Your task to perform on an android device: add a label to a message in the gmail app Image 0: 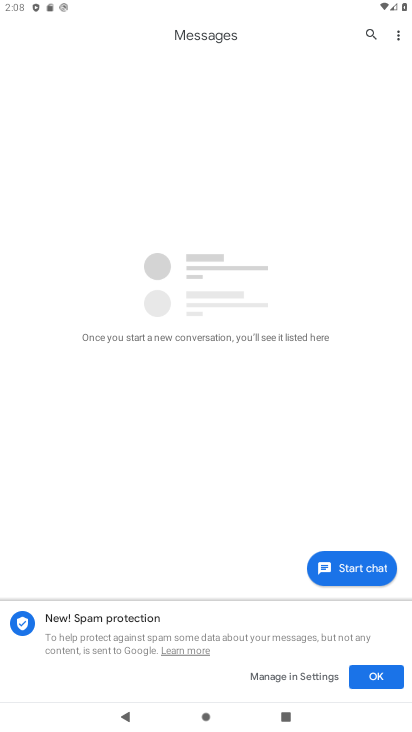
Step 0: press back button
Your task to perform on an android device: add a label to a message in the gmail app Image 1: 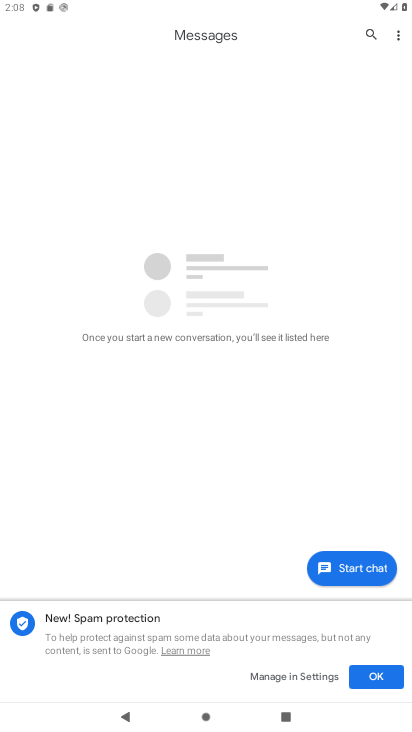
Step 1: press back button
Your task to perform on an android device: add a label to a message in the gmail app Image 2: 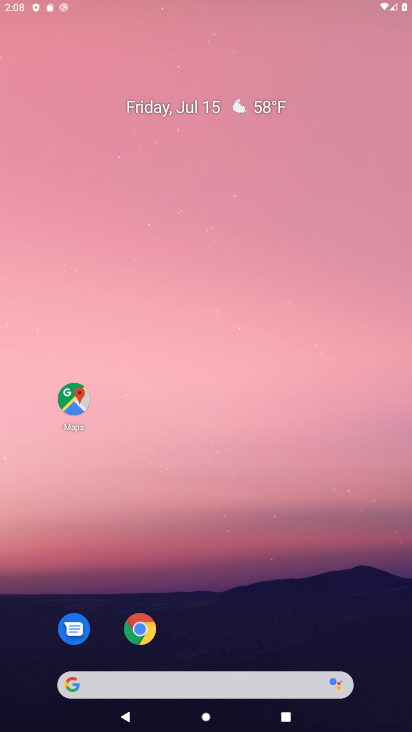
Step 2: press back button
Your task to perform on an android device: add a label to a message in the gmail app Image 3: 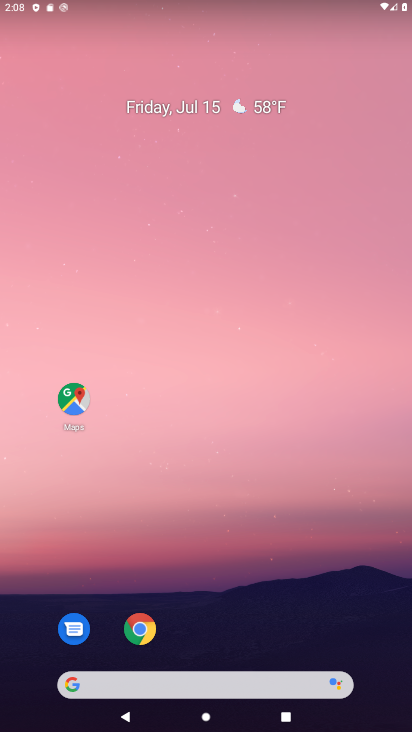
Step 3: press home button
Your task to perform on an android device: add a label to a message in the gmail app Image 4: 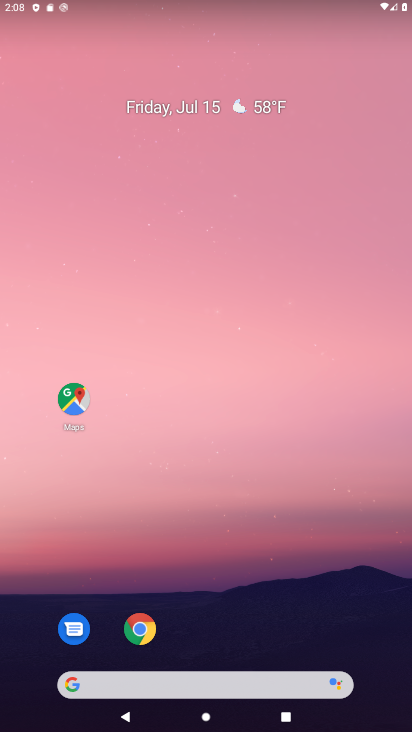
Step 4: drag from (235, 402) to (221, 169)
Your task to perform on an android device: add a label to a message in the gmail app Image 5: 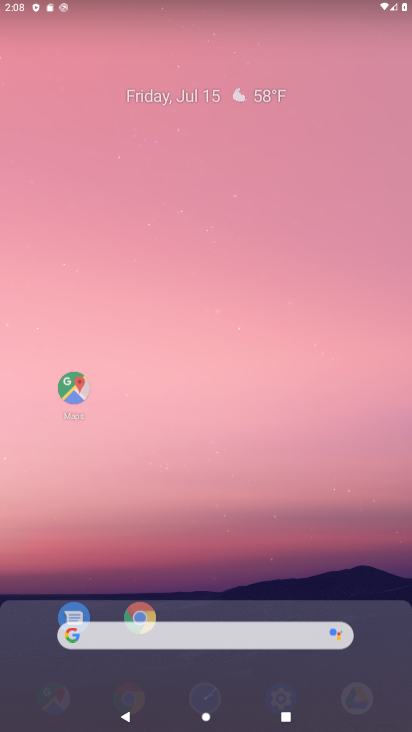
Step 5: drag from (258, 341) to (240, 146)
Your task to perform on an android device: add a label to a message in the gmail app Image 6: 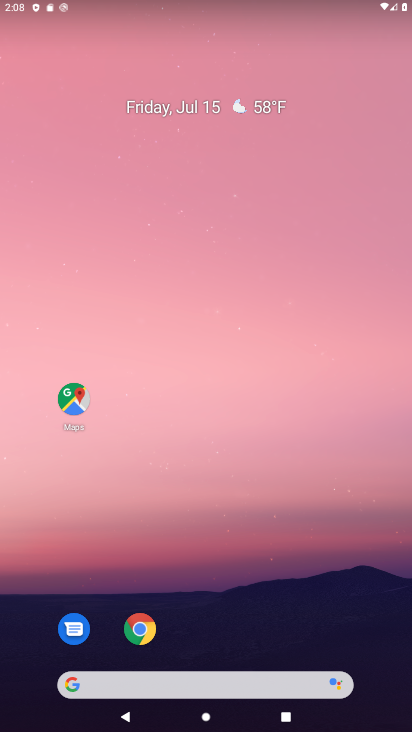
Step 6: drag from (207, 577) to (168, 254)
Your task to perform on an android device: add a label to a message in the gmail app Image 7: 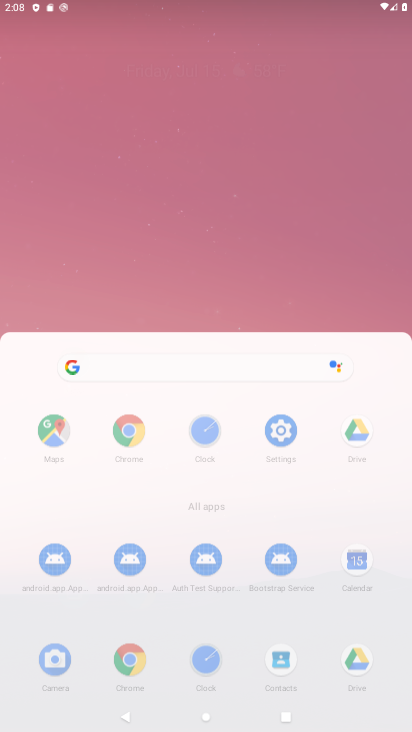
Step 7: drag from (214, 397) to (182, 90)
Your task to perform on an android device: add a label to a message in the gmail app Image 8: 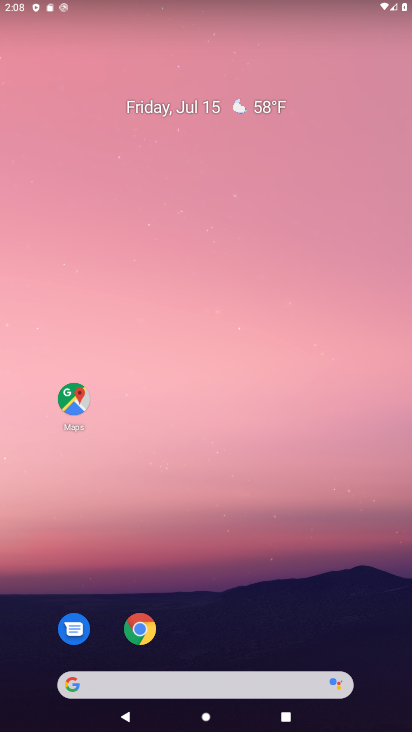
Step 8: drag from (215, 467) to (225, 124)
Your task to perform on an android device: add a label to a message in the gmail app Image 9: 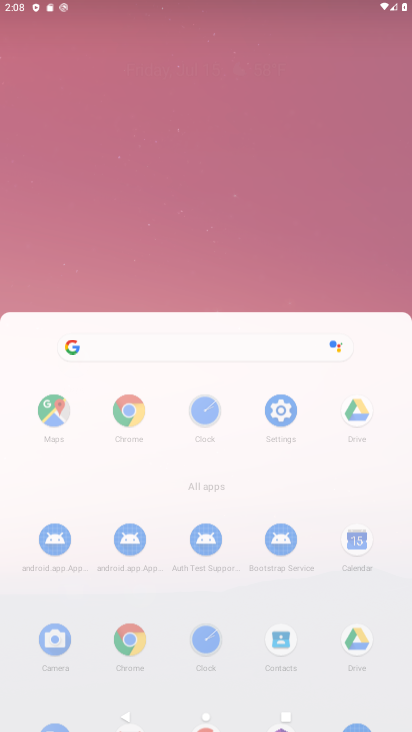
Step 9: drag from (274, 493) to (244, 193)
Your task to perform on an android device: add a label to a message in the gmail app Image 10: 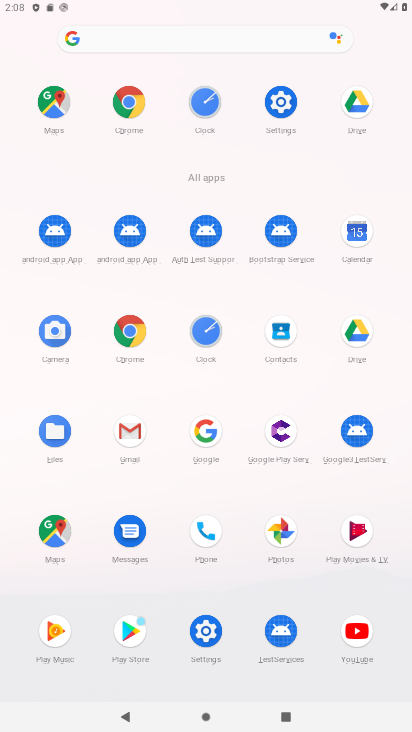
Step 10: drag from (207, 530) to (207, 79)
Your task to perform on an android device: add a label to a message in the gmail app Image 11: 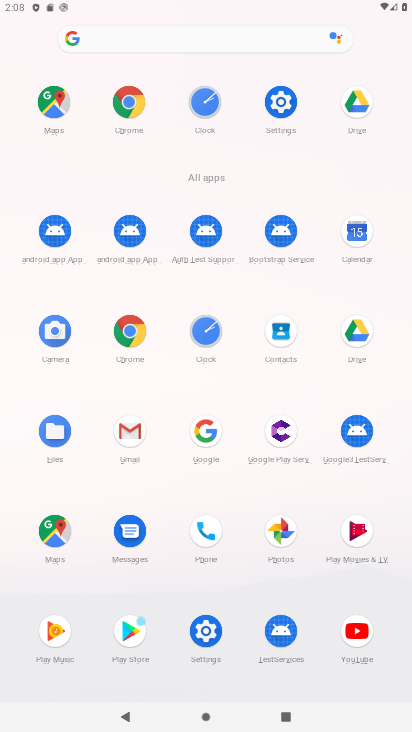
Step 11: click (144, 448)
Your task to perform on an android device: add a label to a message in the gmail app Image 12: 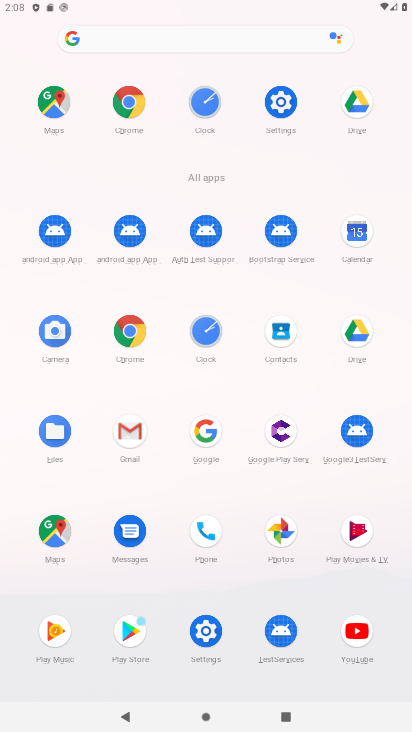
Step 12: click (126, 435)
Your task to perform on an android device: add a label to a message in the gmail app Image 13: 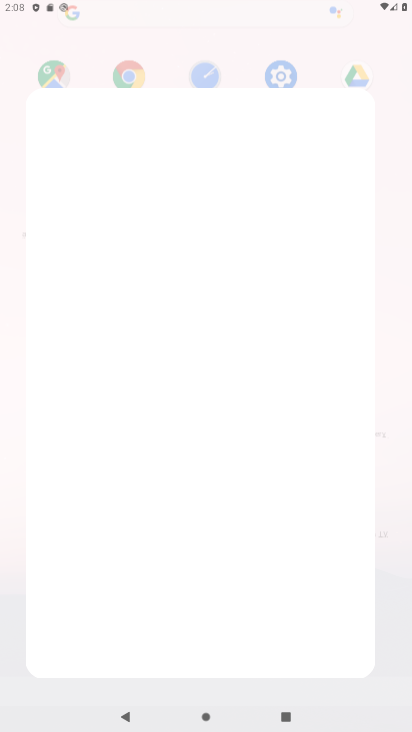
Step 13: click (126, 435)
Your task to perform on an android device: add a label to a message in the gmail app Image 14: 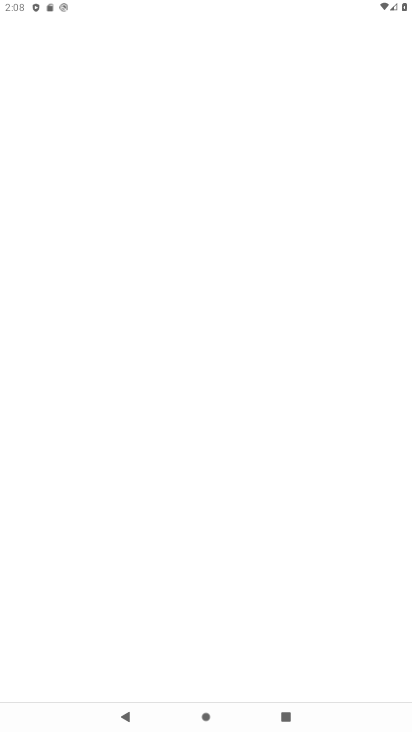
Step 14: click (130, 428)
Your task to perform on an android device: add a label to a message in the gmail app Image 15: 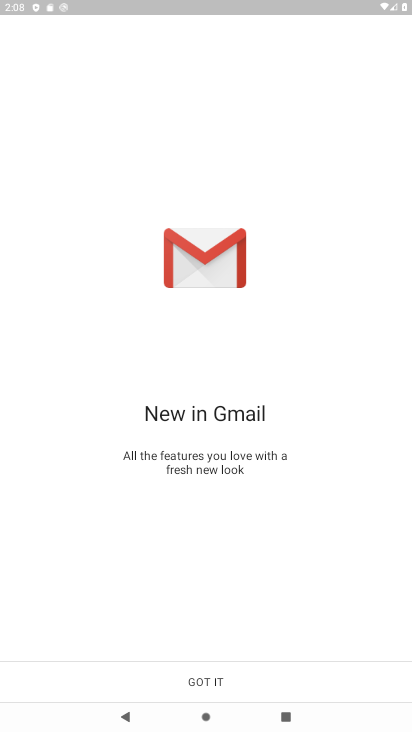
Step 15: click (215, 673)
Your task to perform on an android device: add a label to a message in the gmail app Image 16: 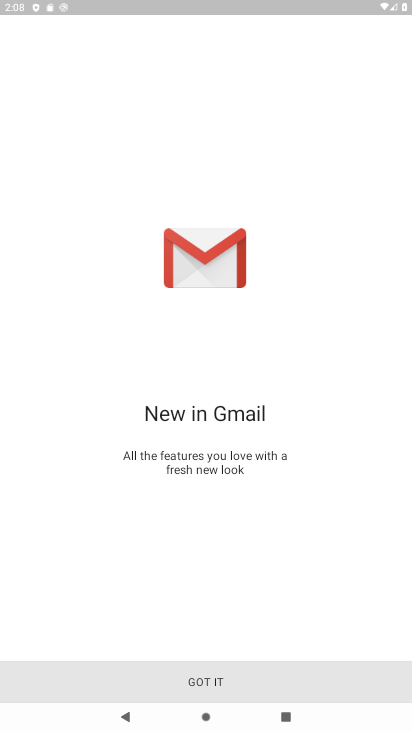
Step 16: click (213, 672)
Your task to perform on an android device: add a label to a message in the gmail app Image 17: 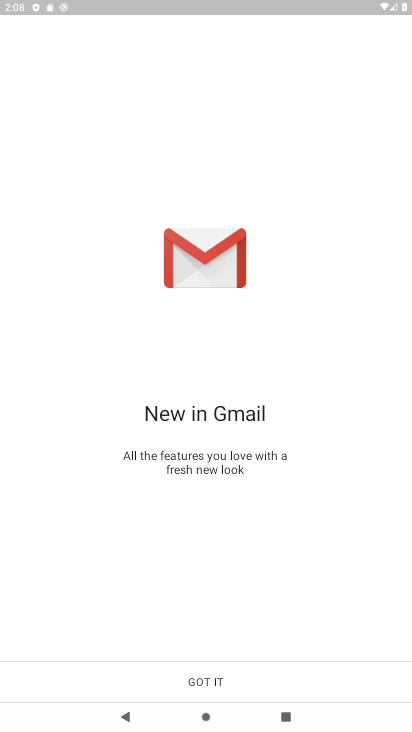
Step 17: click (215, 675)
Your task to perform on an android device: add a label to a message in the gmail app Image 18: 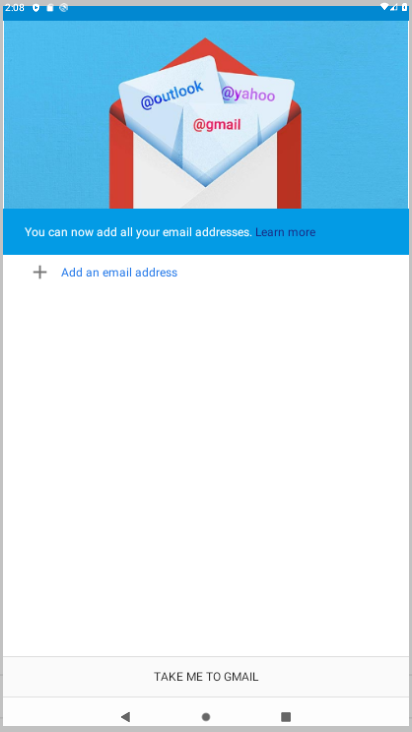
Step 18: click (216, 675)
Your task to perform on an android device: add a label to a message in the gmail app Image 19: 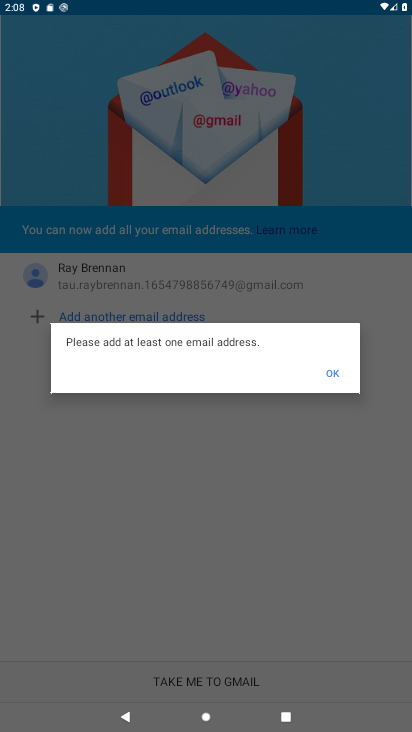
Step 19: click (332, 367)
Your task to perform on an android device: add a label to a message in the gmail app Image 20: 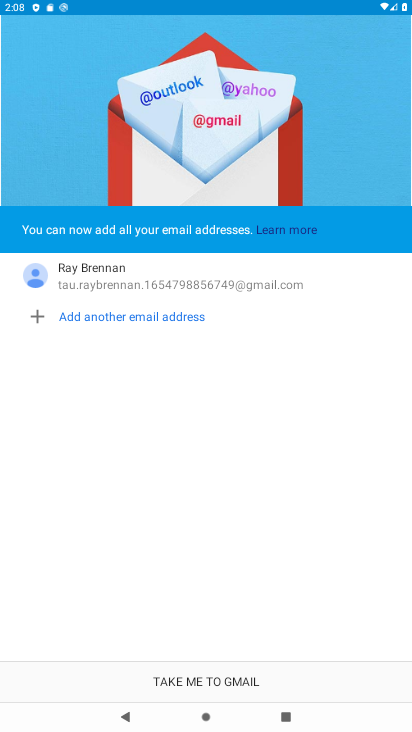
Step 20: task complete